Your task to perform on an android device: turn vacation reply on in the gmail app Image 0: 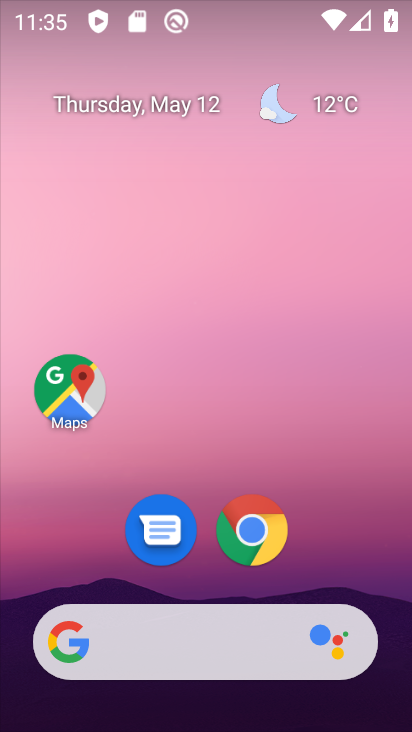
Step 0: drag from (318, 507) to (244, 280)
Your task to perform on an android device: turn vacation reply on in the gmail app Image 1: 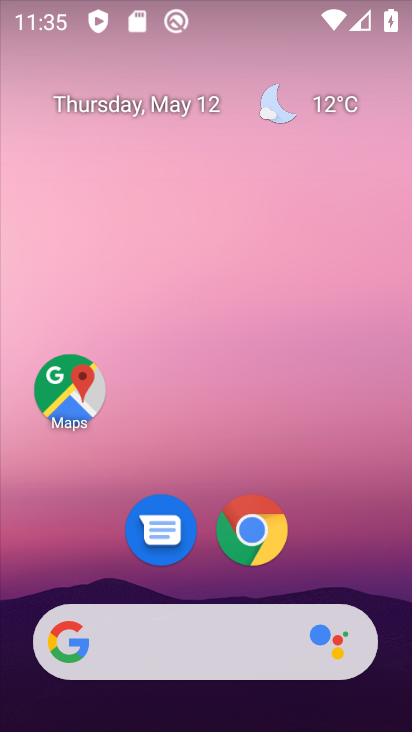
Step 1: drag from (335, 434) to (301, 27)
Your task to perform on an android device: turn vacation reply on in the gmail app Image 2: 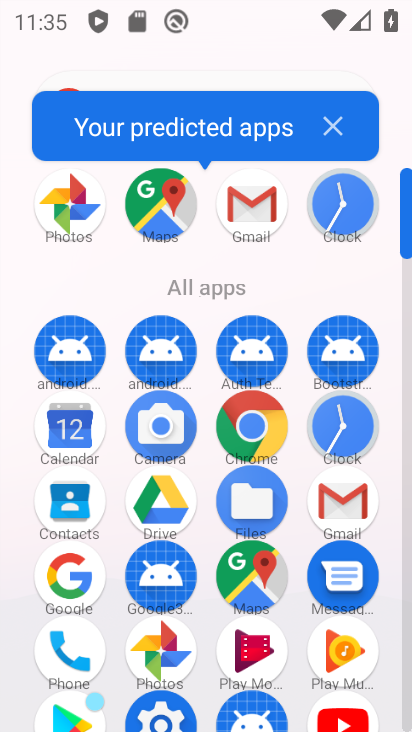
Step 2: click (352, 486)
Your task to perform on an android device: turn vacation reply on in the gmail app Image 3: 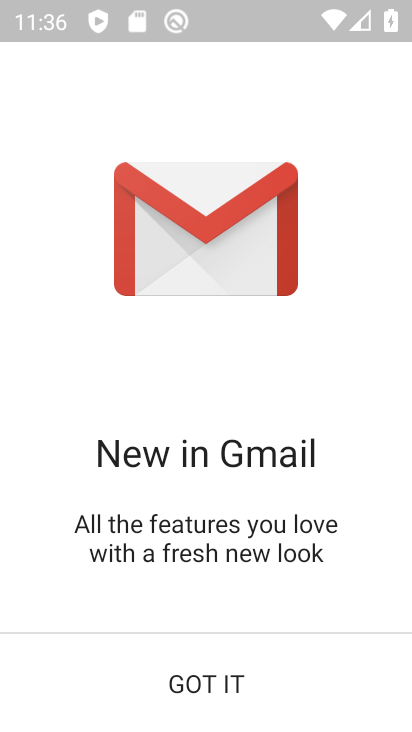
Step 3: click (230, 687)
Your task to perform on an android device: turn vacation reply on in the gmail app Image 4: 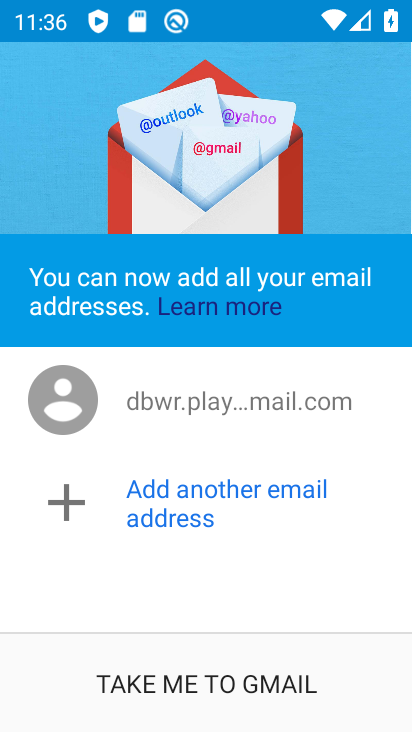
Step 4: click (230, 687)
Your task to perform on an android device: turn vacation reply on in the gmail app Image 5: 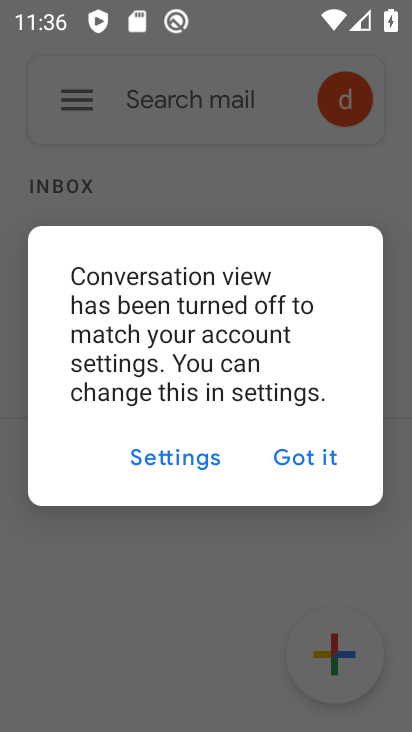
Step 5: click (326, 472)
Your task to perform on an android device: turn vacation reply on in the gmail app Image 6: 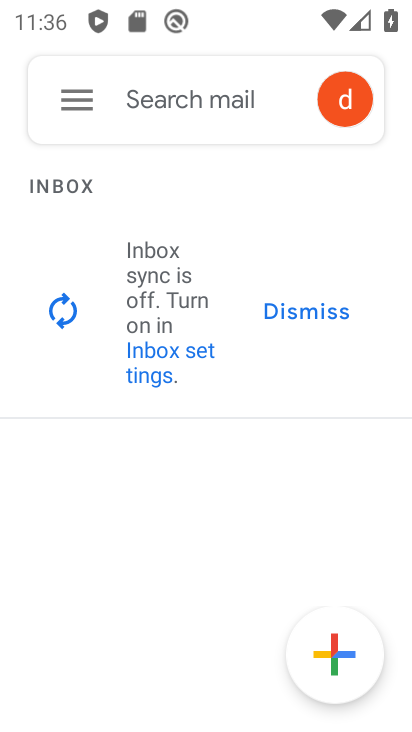
Step 6: click (83, 105)
Your task to perform on an android device: turn vacation reply on in the gmail app Image 7: 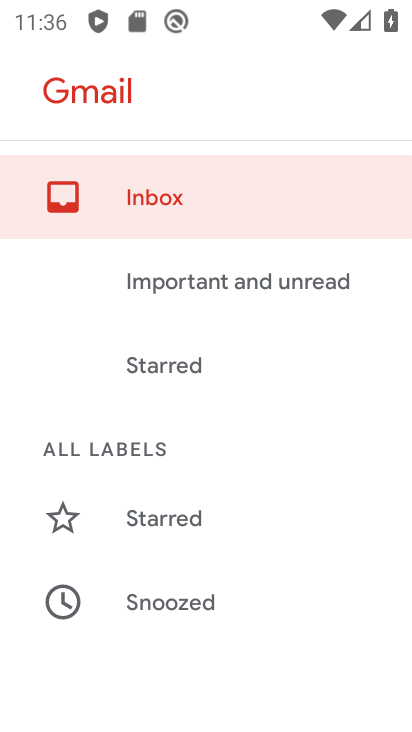
Step 7: drag from (284, 536) to (203, 223)
Your task to perform on an android device: turn vacation reply on in the gmail app Image 8: 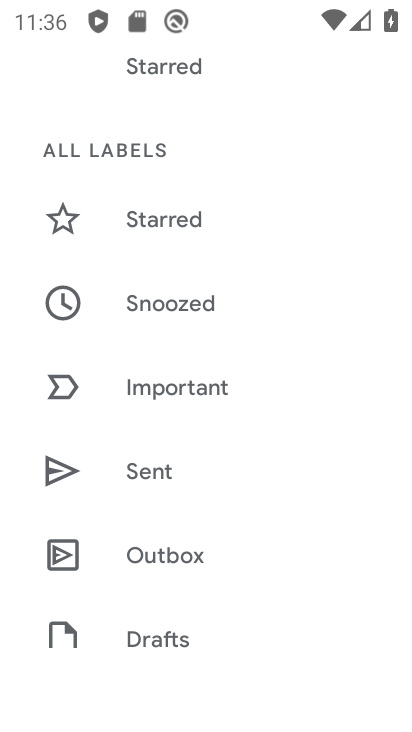
Step 8: drag from (260, 630) to (179, 443)
Your task to perform on an android device: turn vacation reply on in the gmail app Image 9: 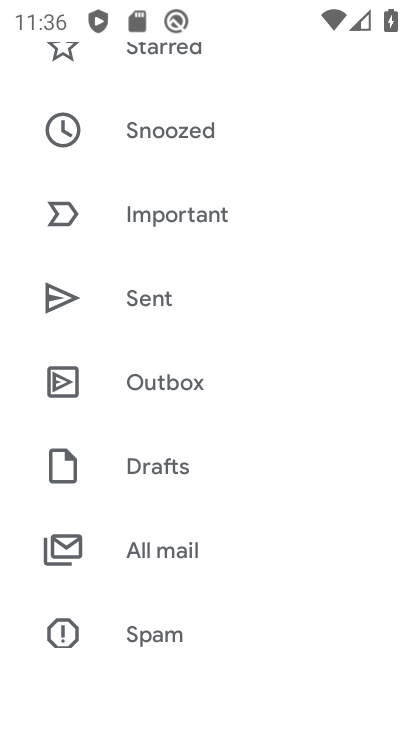
Step 9: drag from (244, 588) to (97, 213)
Your task to perform on an android device: turn vacation reply on in the gmail app Image 10: 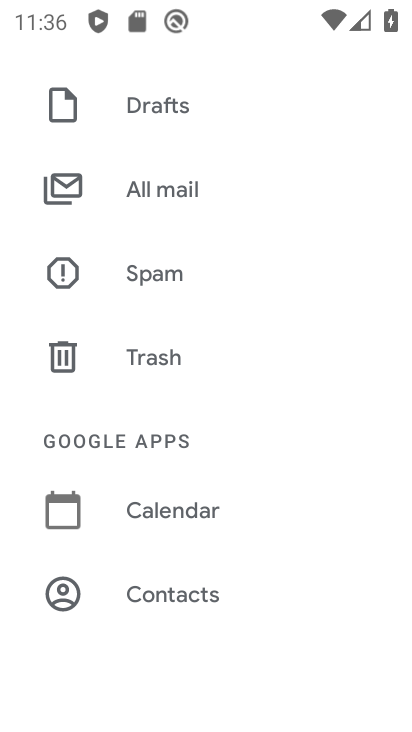
Step 10: drag from (233, 560) to (153, 287)
Your task to perform on an android device: turn vacation reply on in the gmail app Image 11: 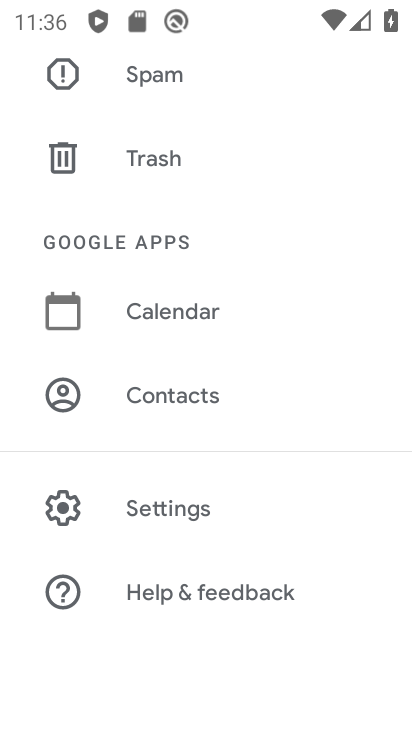
Step 11: click (168, 514)
Your task to perform on an android device: turn vacation reply on in the gmail app Image 12: 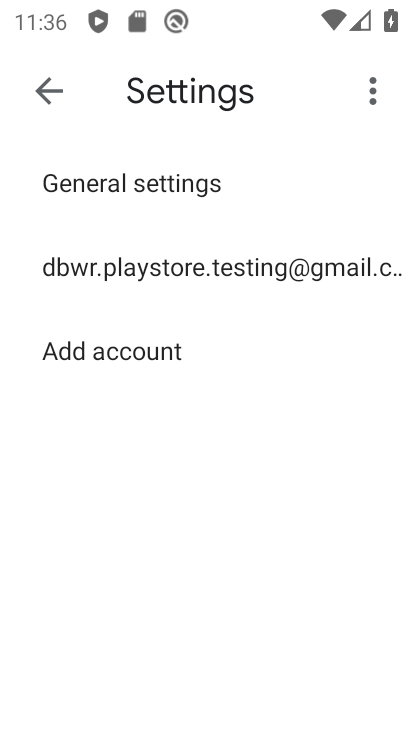
Step 12: click (93, 260)
Your task to perform on an android device: turn vacation reply on in the gmail app Image 13: 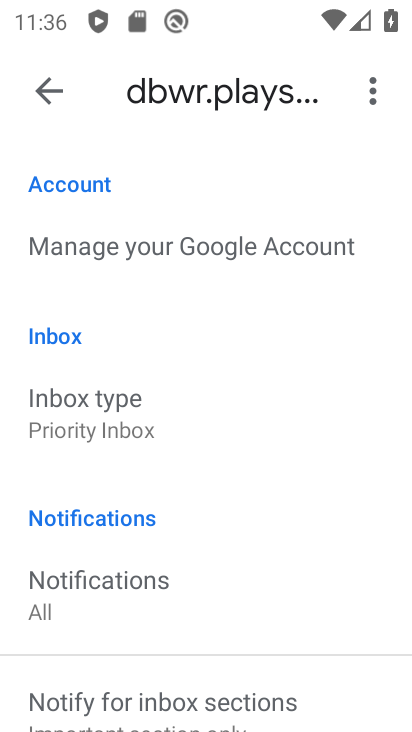
Step 13: task complete